Your task to perform on an android device: Open Google Maps and go to "Timeline" Image 0: 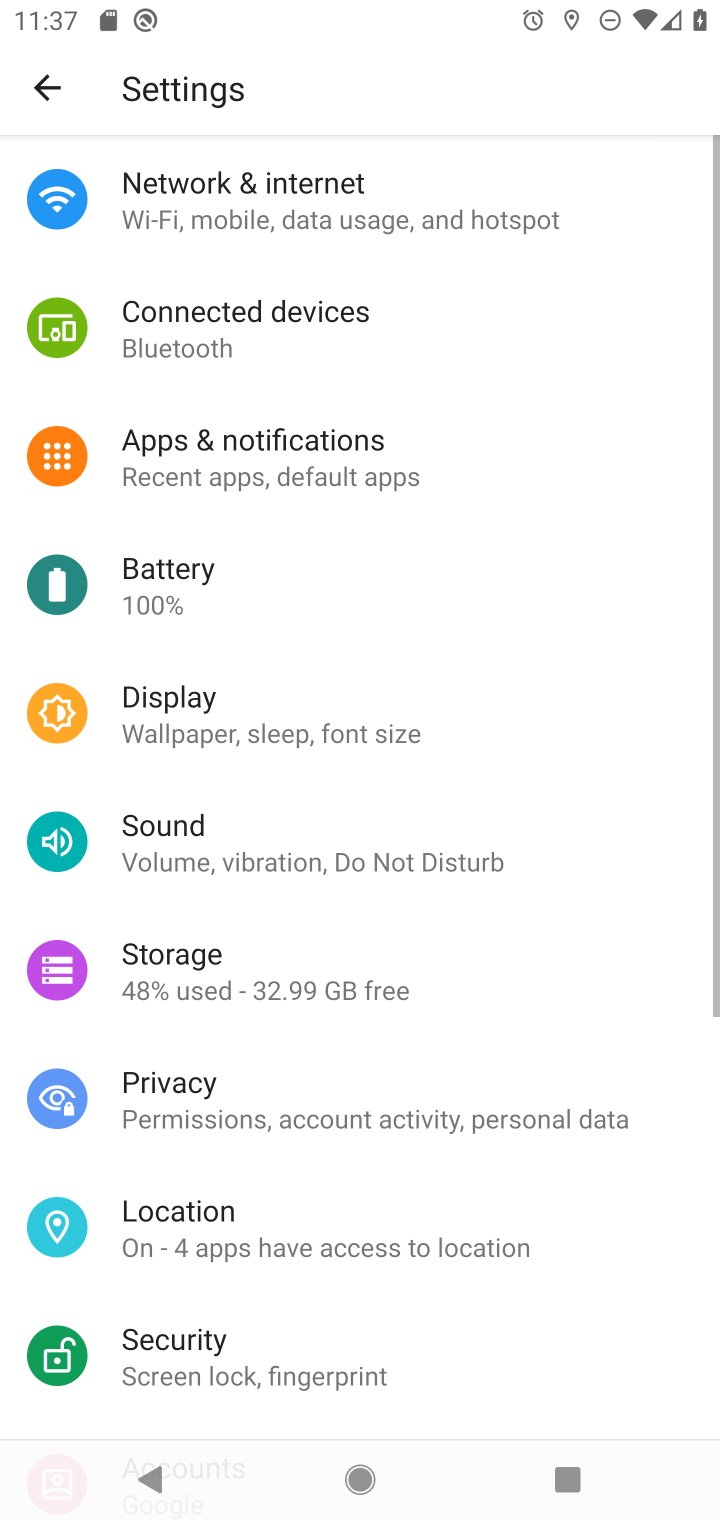
Step 0: press home button
Your task to perform on an android device: Open Google Maps and go to "Timeline" Image 1: 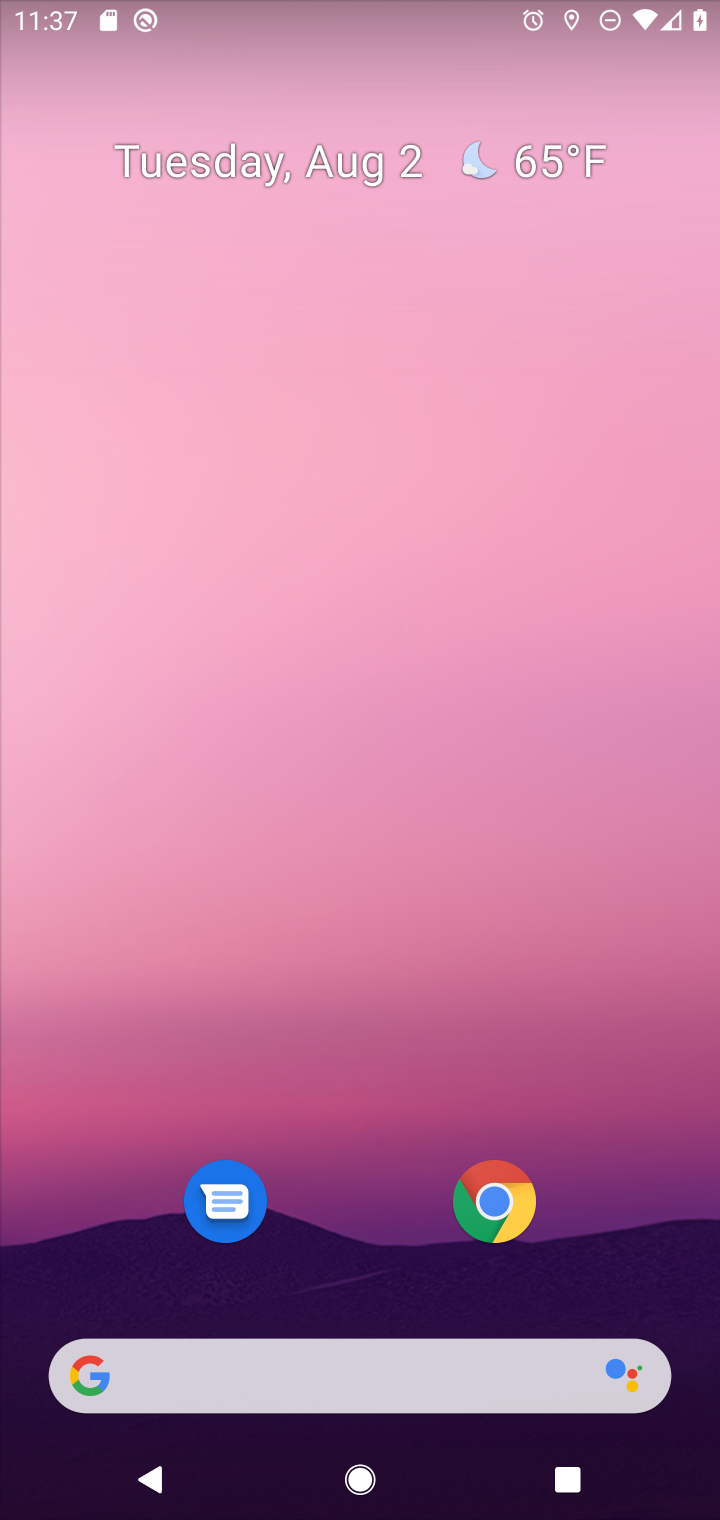
Step 1: drag from (247, 1290) to (256, 20)
Your task to perform on an android device: Open Google Maps and go to "Timeline" Image 2: 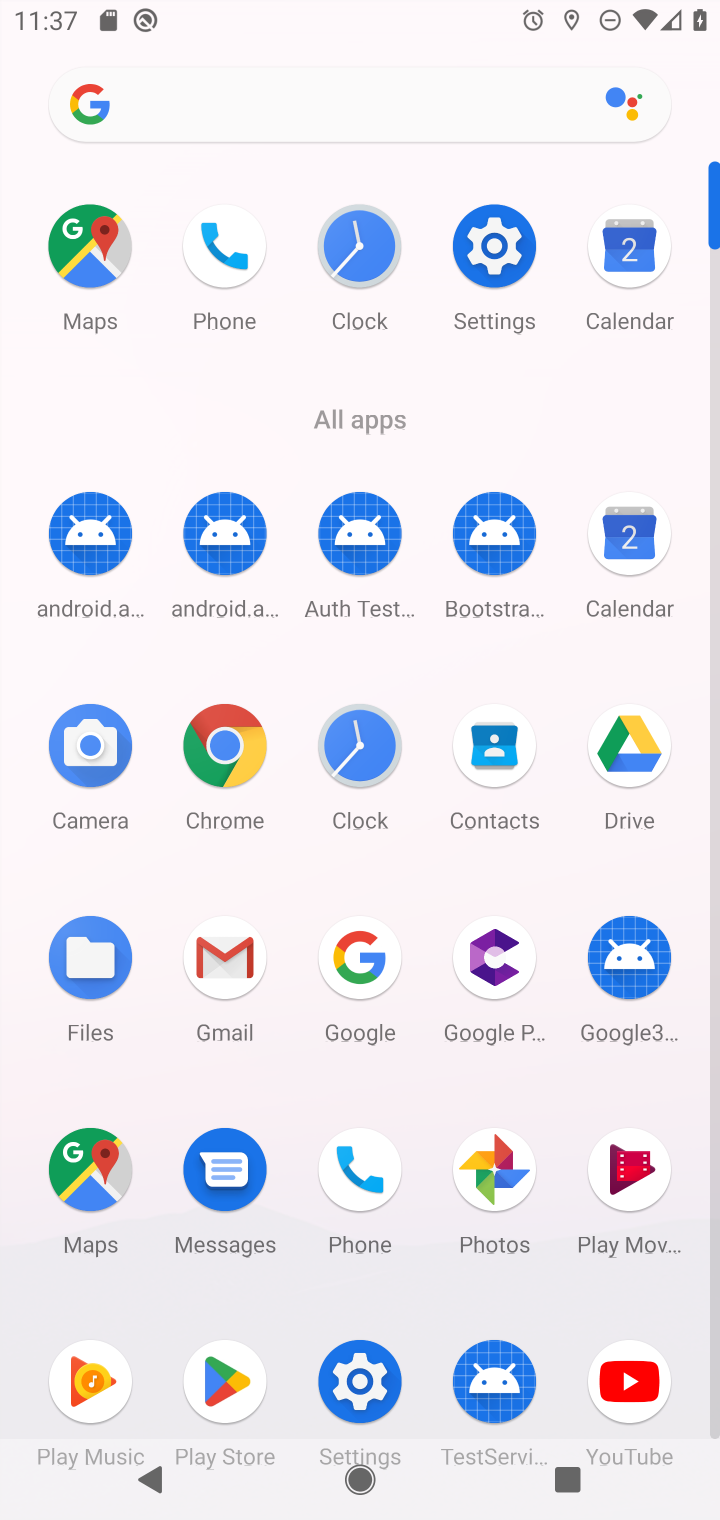
Step 2: click (83, 1179)
Your task to perform on an android device: Open Google Maps and go to "Timeline" Image 3: 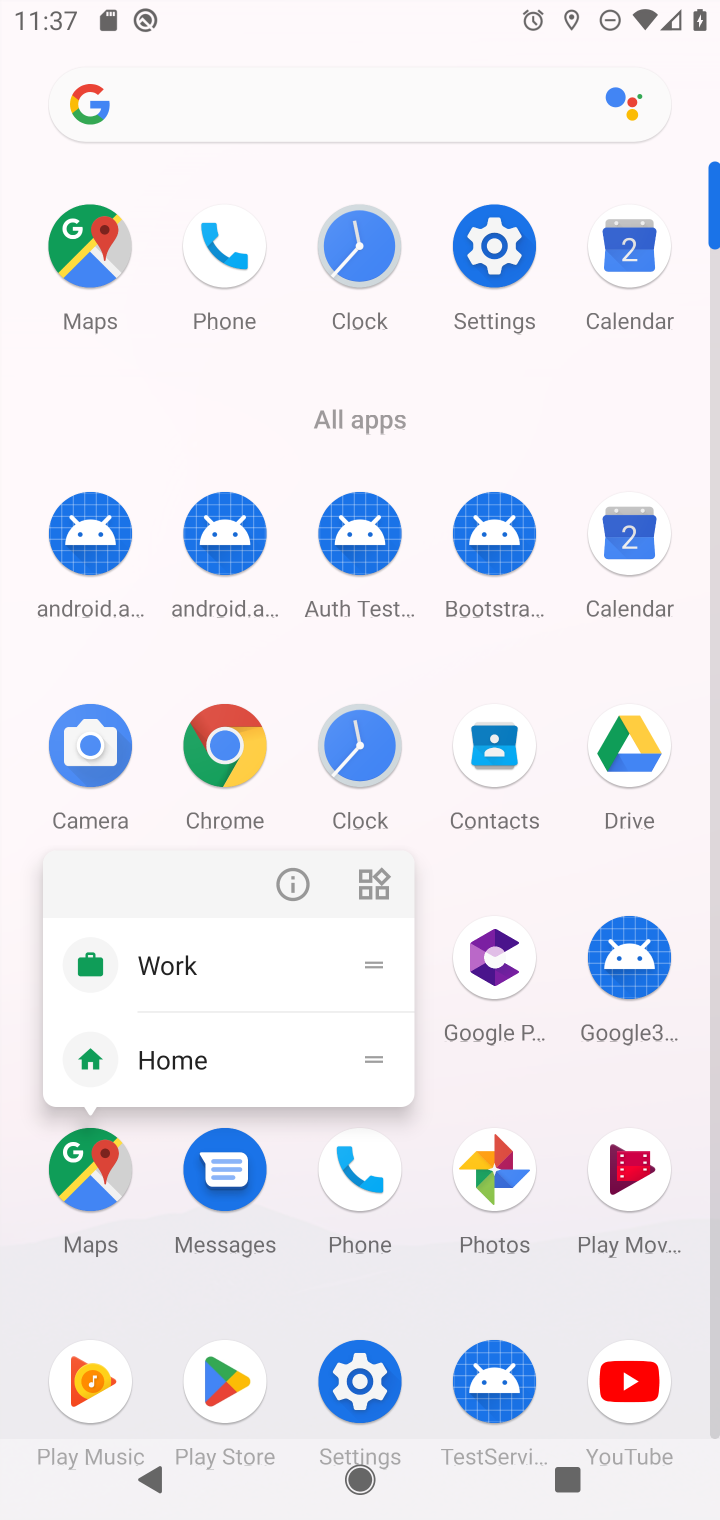
Step 3: click (77, 1205)
Your task to perform on an android device: Open Google Maps and go to "Timeline" Image 4: 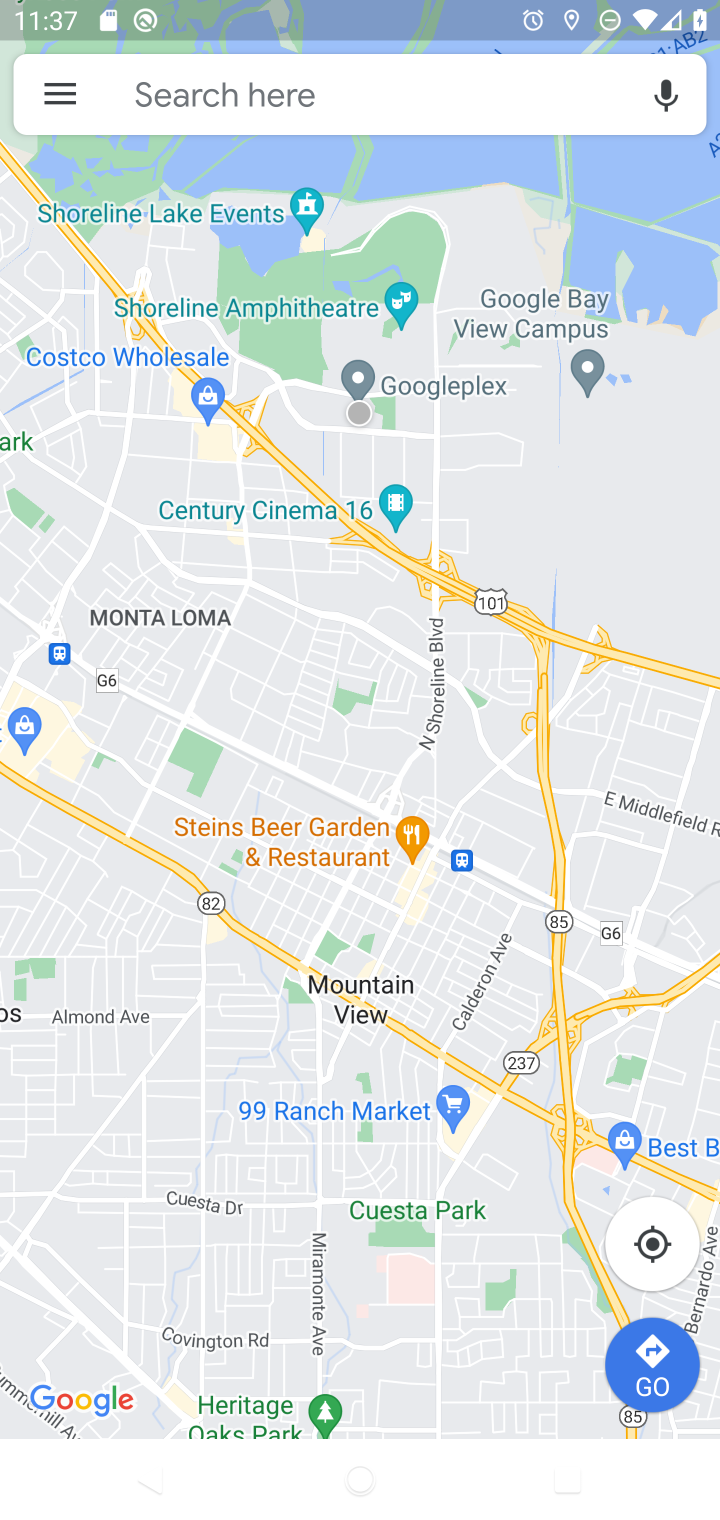
Step 4: click (67, 96)
Your task to perform on an android device: Open Google Maps and go to "Timeline" Image 5: 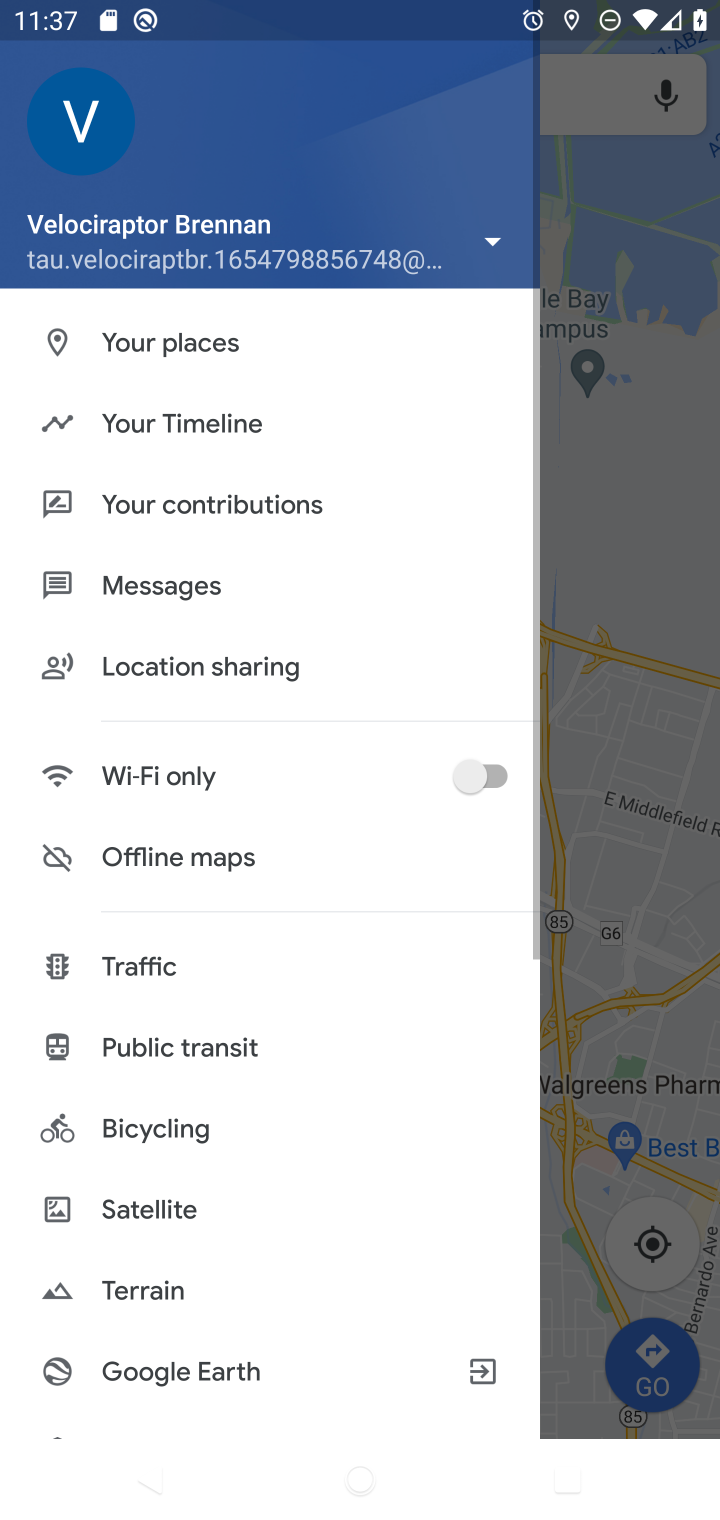
Step 5: click (199, 426)
Your task to perform on an android device: Open Google Maps and go to "Timeline" Image 6: 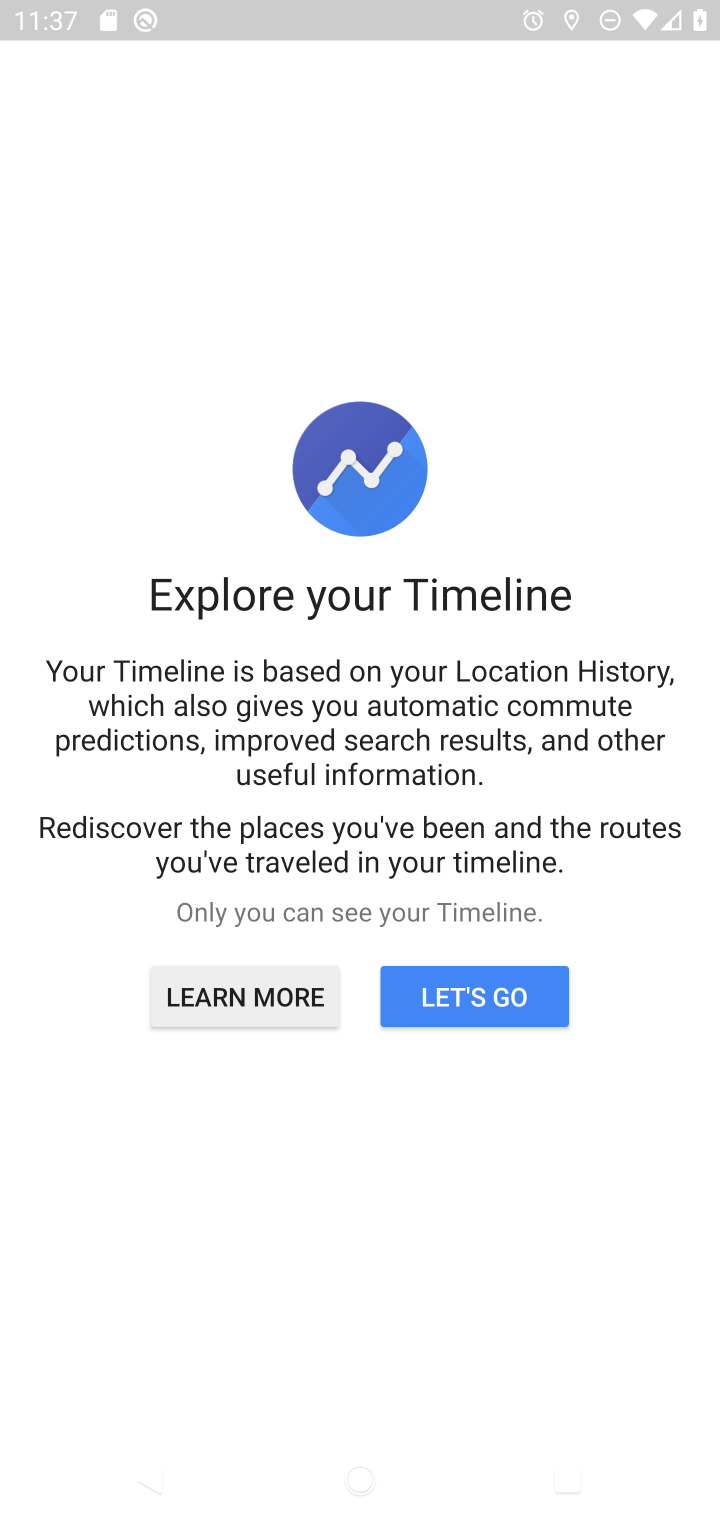
Step 6: click (544, 1018)
Your task to perform on an android device: Open Google Maps and go to "Timeline" Image 7: 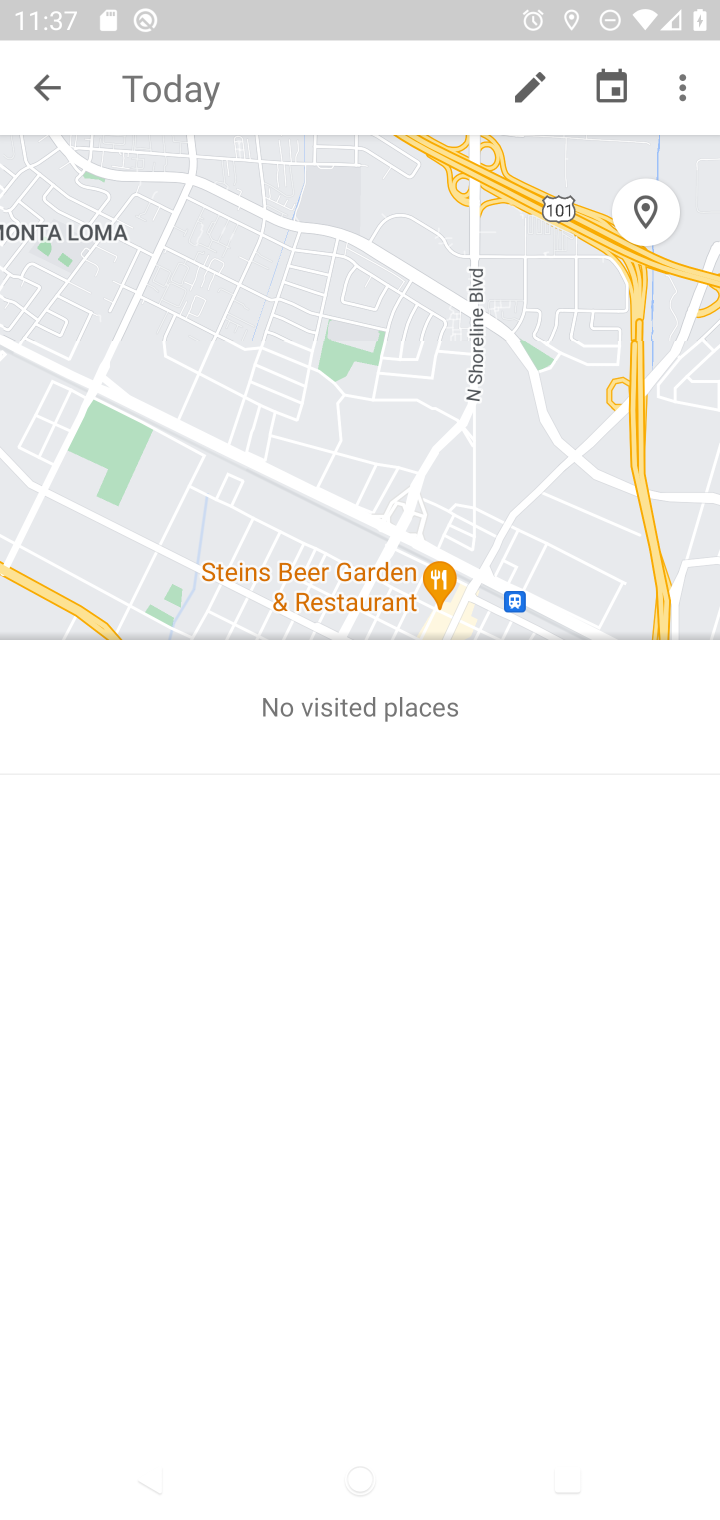
Step 7: task complete